Your task to perform on an android device: turn on airplane mode Image 0: 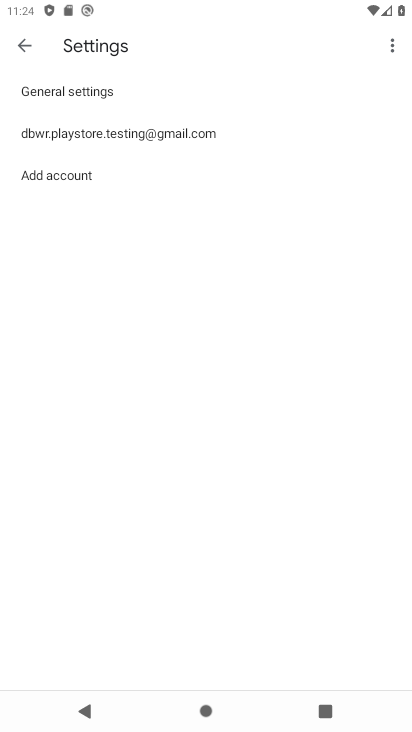
Step 0: press home button
Your task to perform on an android device: turn on airplane mode Image 1: 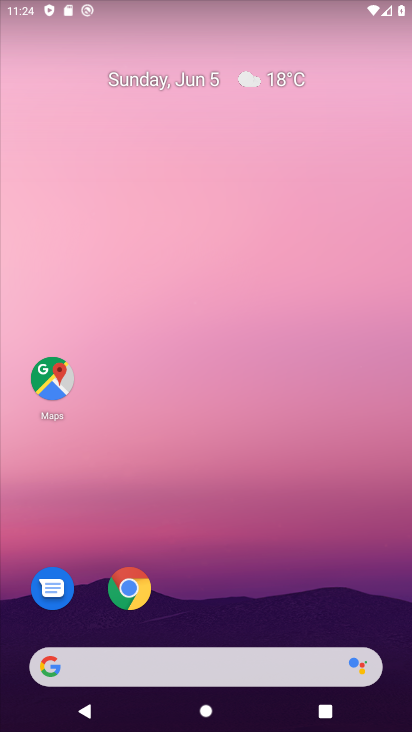
Step 1: drag from (218, 609) to (204, 210)
Your task to perform on an android device: turn on airplane mode Image 2: 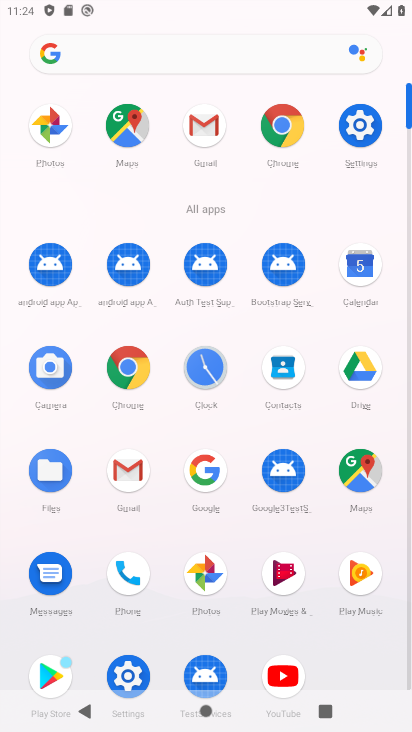
Step 2: click (351, 131)
Your task to perform on an android device: turn on airplane mode Image 3: 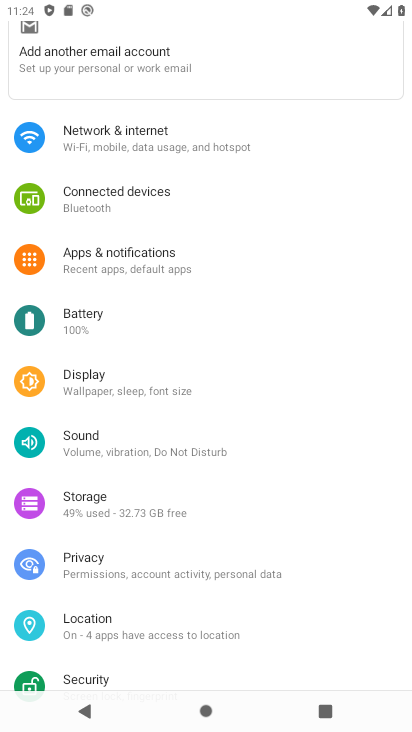
Step 3: click (260, 155)
Your task to perform on an android device: turn on airplane mode Image 4: 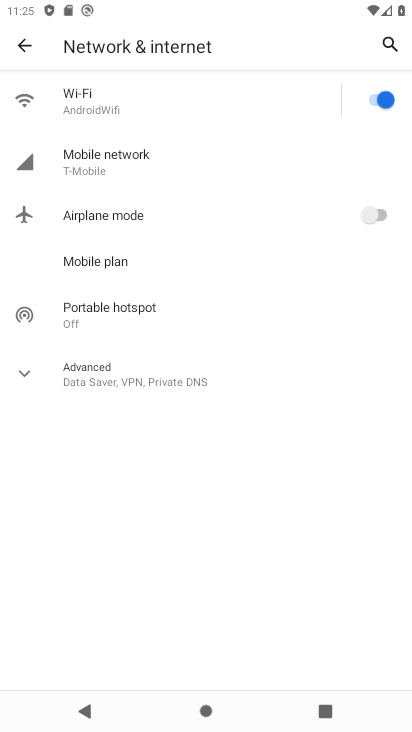
Step 4: click (368, 217)
Your task to perform on an android device: turn on airplane mode Image 5: 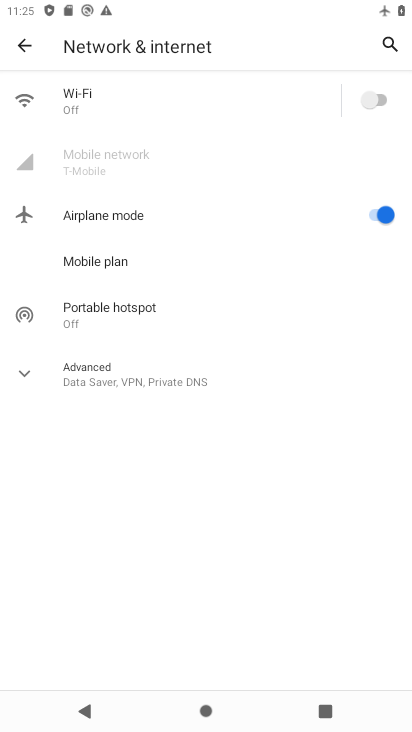
Step 5: task complete